Your task to perform on an android device: turn on bluetooth scan Image 0: 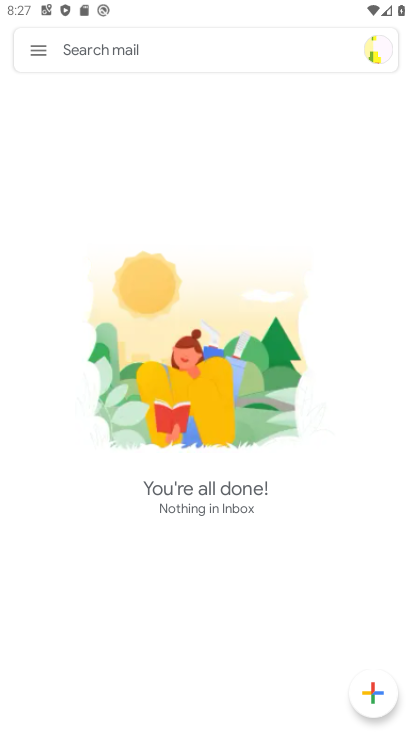
Step 0: press home button
Your task to perform on an android device: turn on bluetooth scan Image 1: 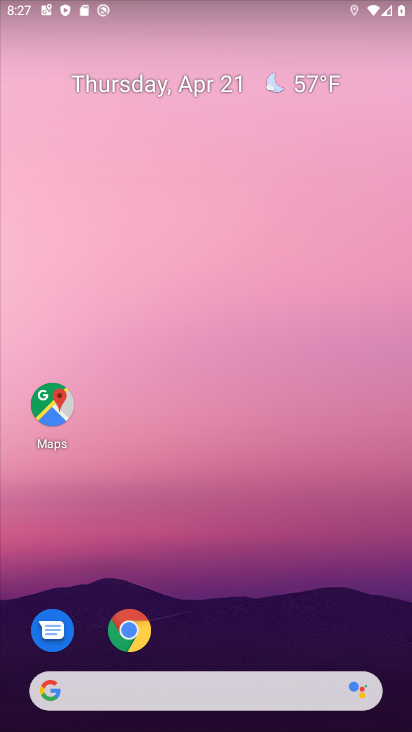
Step 1: drag from (301, 627) to (302, 83)
Your task to perform on an android device: turn on bluetooth scan Image 2: 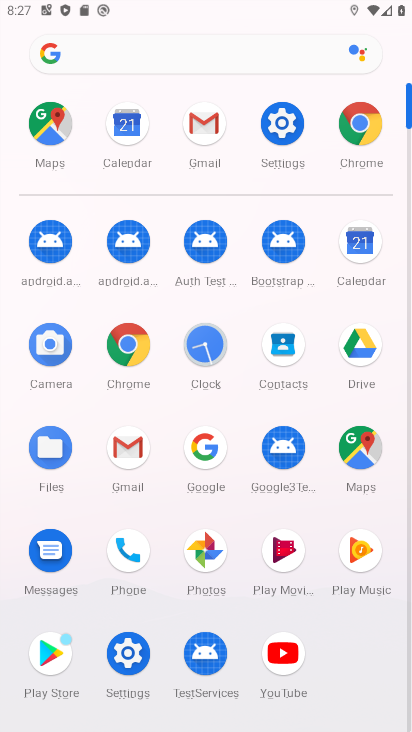
Step 2: click (136, 657)
Your task to perform on an android device: turn on bluetooth scan Image 3: 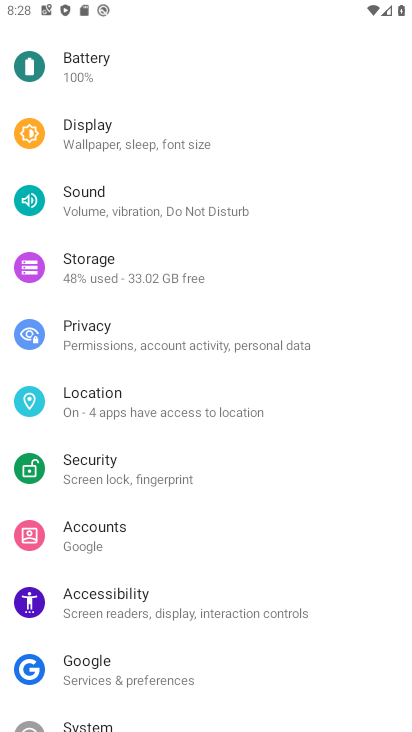
Step 3: click (126, 403)
Your task to perform on an android device: turn on bluetooth scan Image 4: 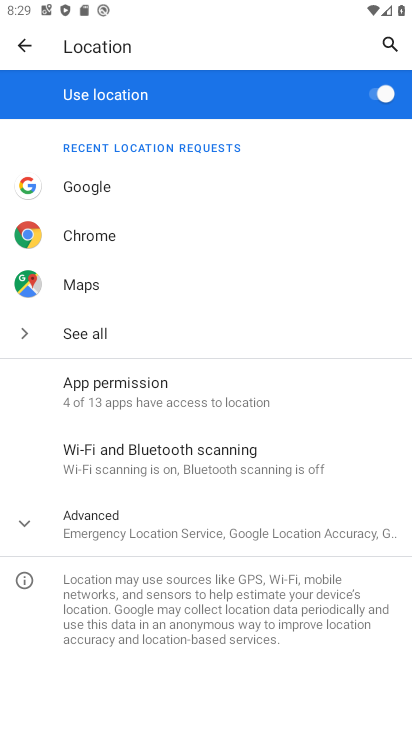
Step 4: click (205, 468)
Your task to perform on an android device: turn on bluetooth scan Image 5: 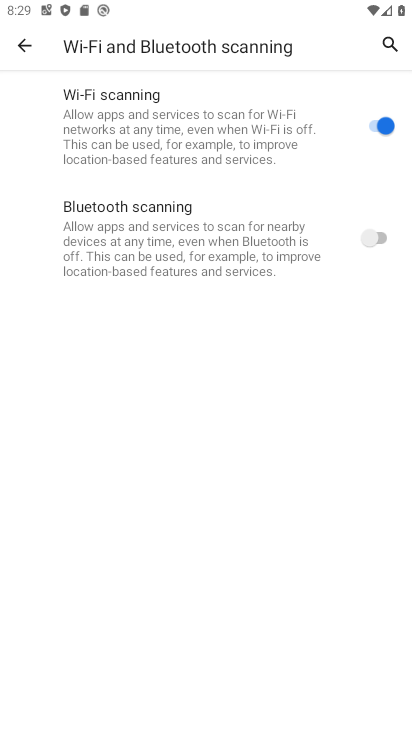
Step 5: click (364, 243)
Your task to perform on an android device: turn on bluetooth scan Image 6: 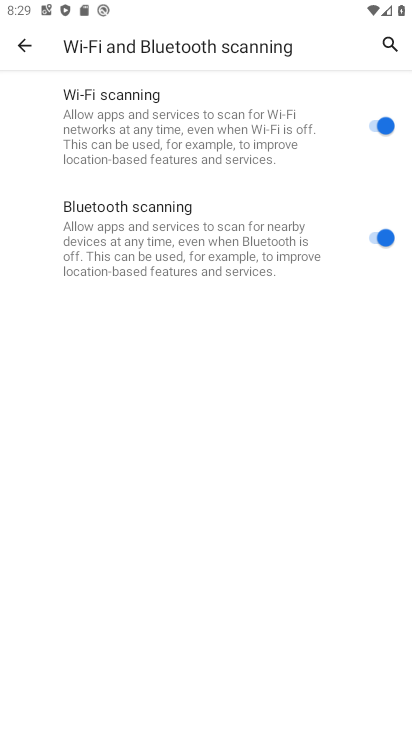
Step 6: task complete